Your task to perform on an android device: clear history in the chrome app Image 0: 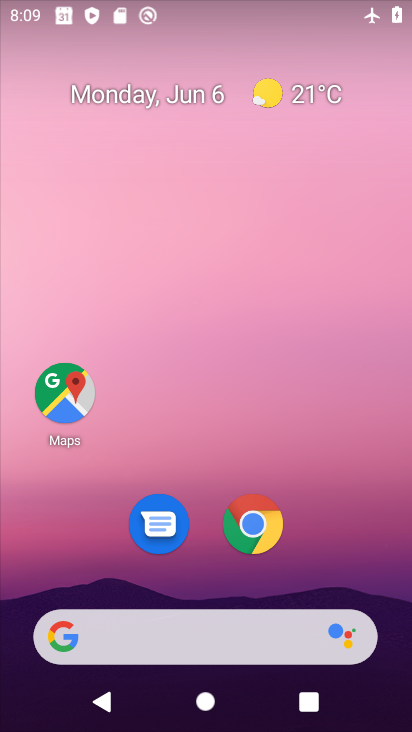
Step 0: click (260, 527)
Your task to perform on an android device: clear history in the chrome app Image 1: 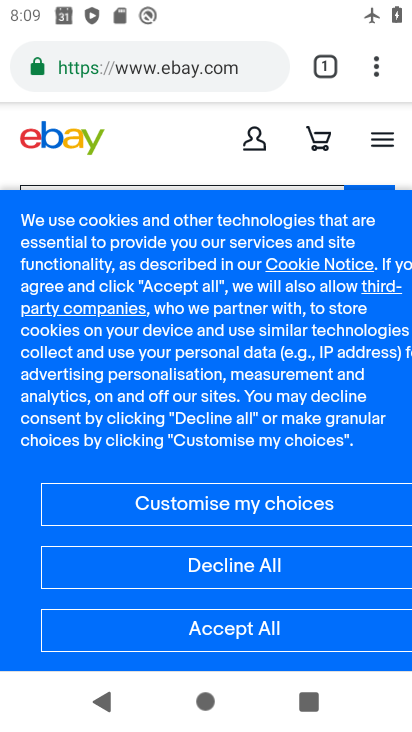
Step 1: click (379, 80)
Your task to perform on an android device: clear history in the chrome app Image 2: 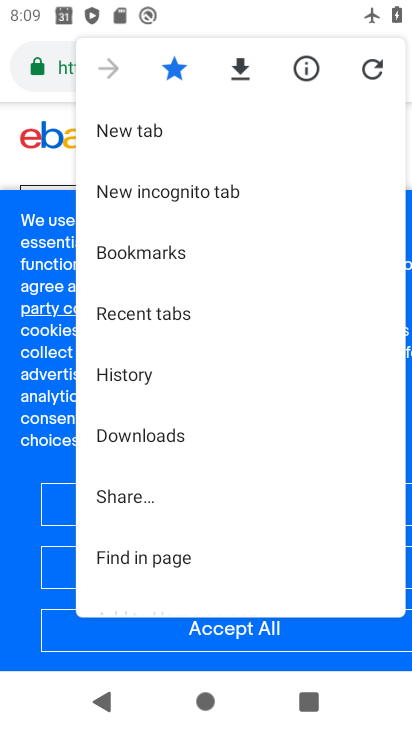
Step 2: click (133, 372)
Your task to perform on an android device: clear history in the chrome app Image 3: 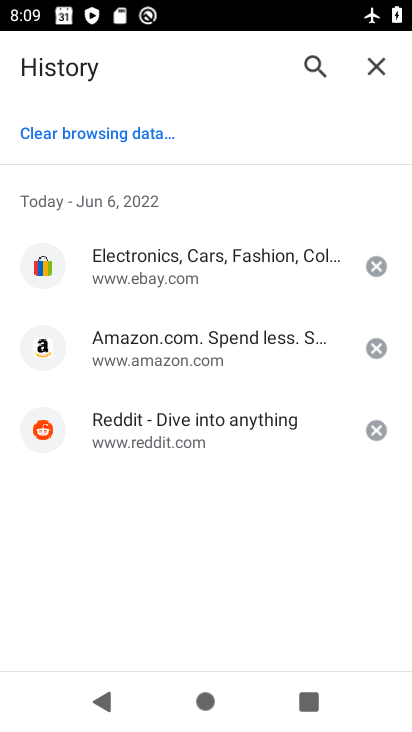
Step 3: click (99, 135)
Your task to perform on an android device: clear history in the chrome app Image 4: 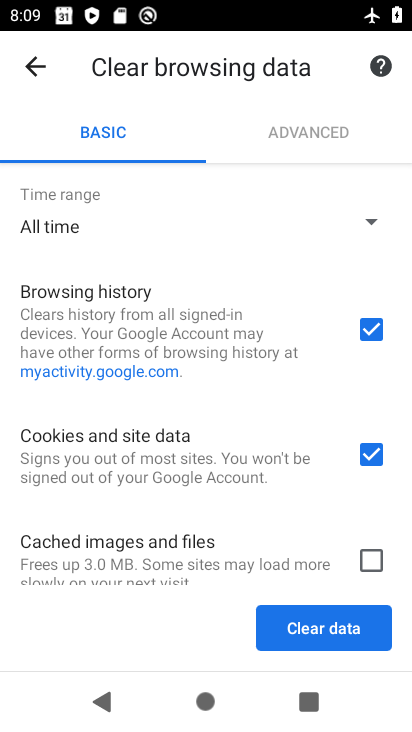
Step 4: click (380, 562)
Your task to perform on an android device: clear history in the chrome app Image 5: 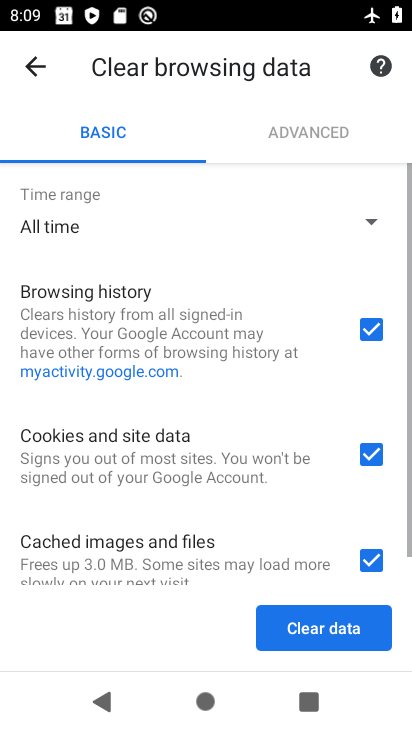
Step 5: click (351, 621)
Your task to perform on an android device: clear history in the chrome app Image 6: 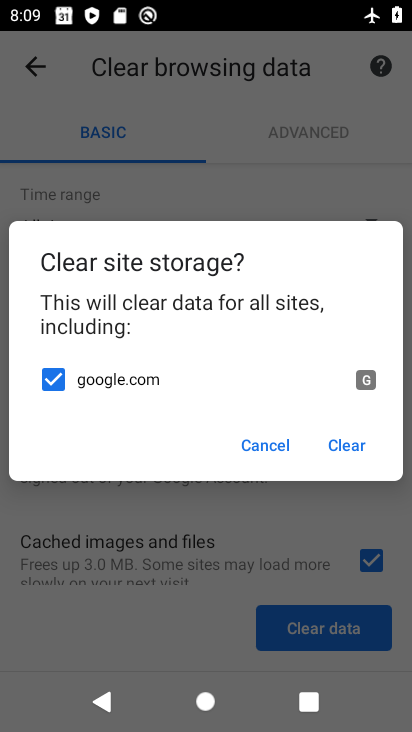
Step 6: click (354, 432)
Your task to perform on an android device: clear history in the chrome app Image 7: 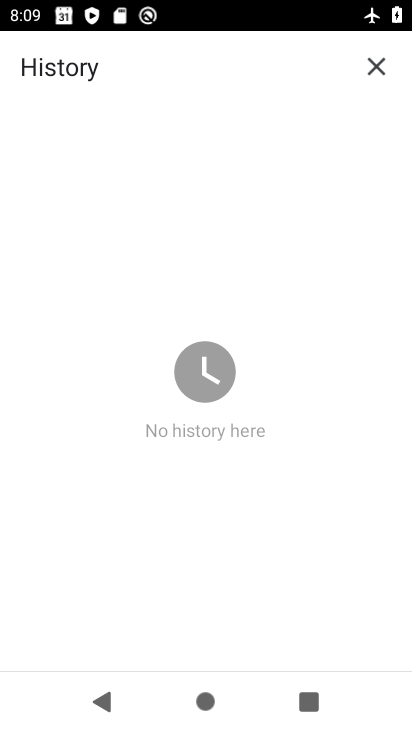
Step 7: task complete